Your task to perform on an android device: change alarm snooze length Image 0: 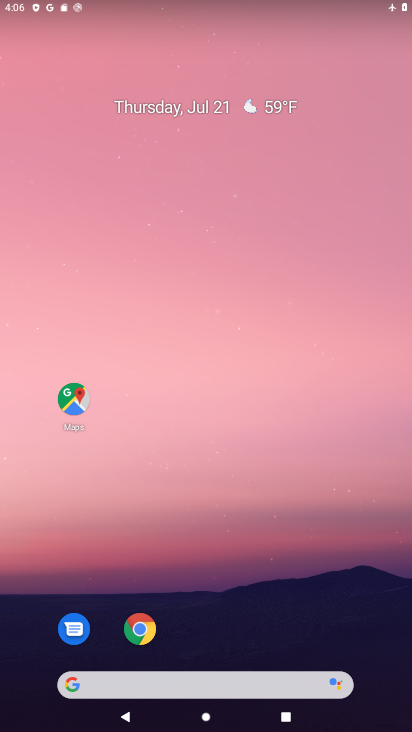
Step 0: drag from (249, 594) to (193, 32)
Your task to perform on an android device: change alarm snooze length Image 1: 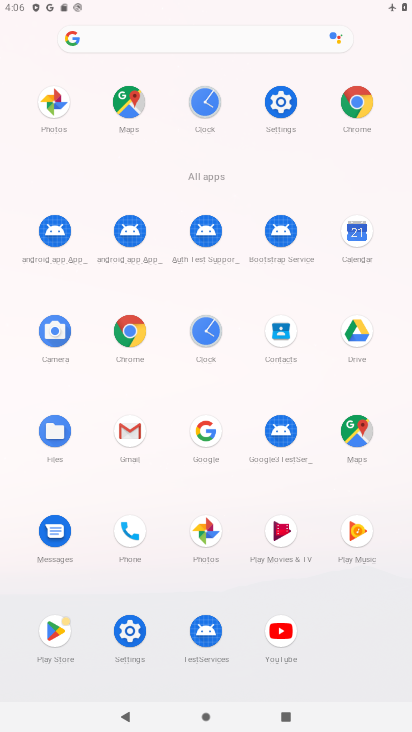
Step 1: click (204, 328)
Your task to perform on an android device: change alarm snooze length Image 2: 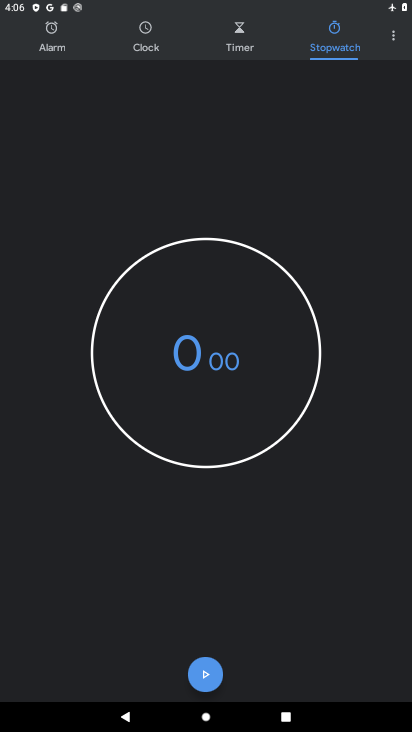
Step 2: click (398, 38)
Your task to perform on an android device: change alarm snooze length Image 3: 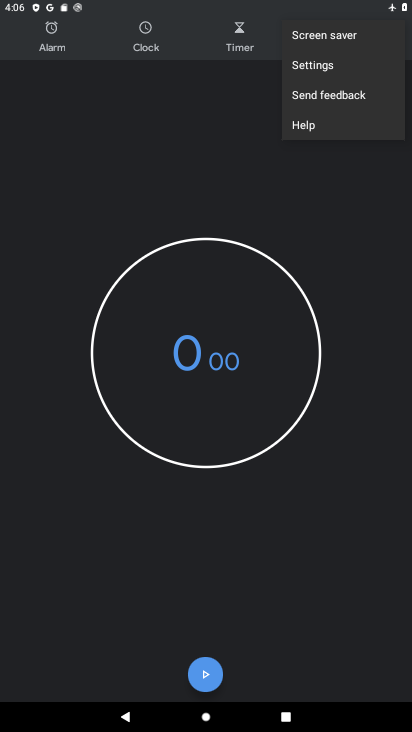
Step 3: click (333, 64)
Your task to perform on an android device: change alarm snooze length Image 4: 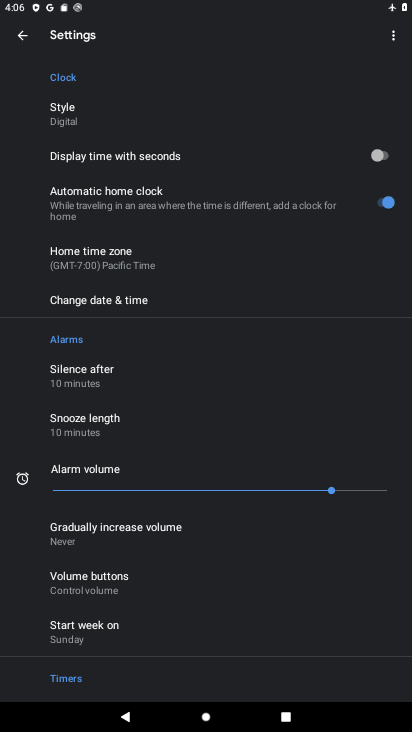
Step 4: click (101, 427)
Your task to perform on an android device: change alarm snooze length Image 5: 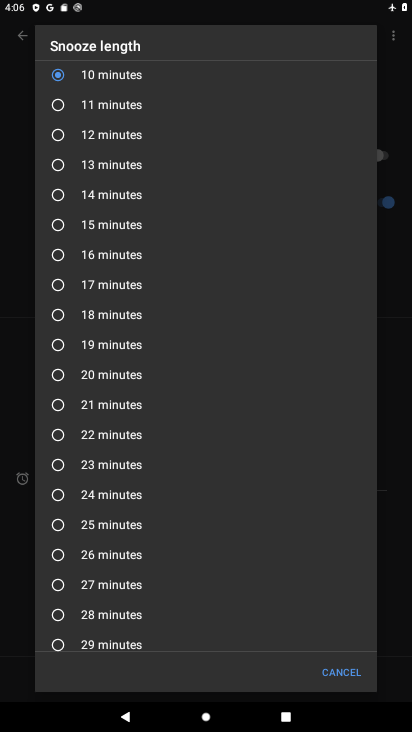
Step 5: click (60, 375)
Your task to perform on an android device: change alarm snooze length Image 6: 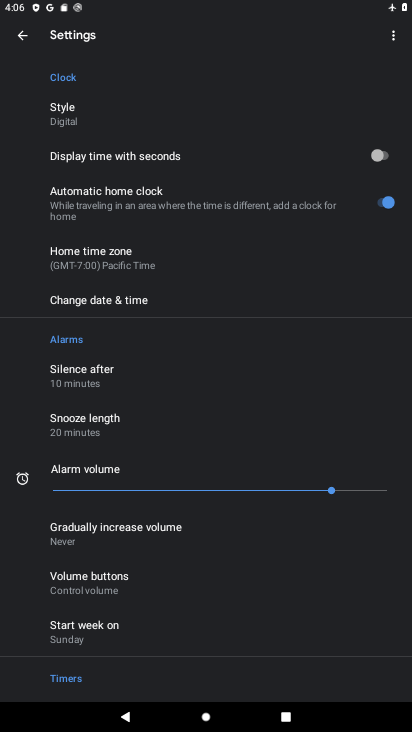
Step 6: task complete